Your task to perform on an android device: Open Google Maps Image 0: 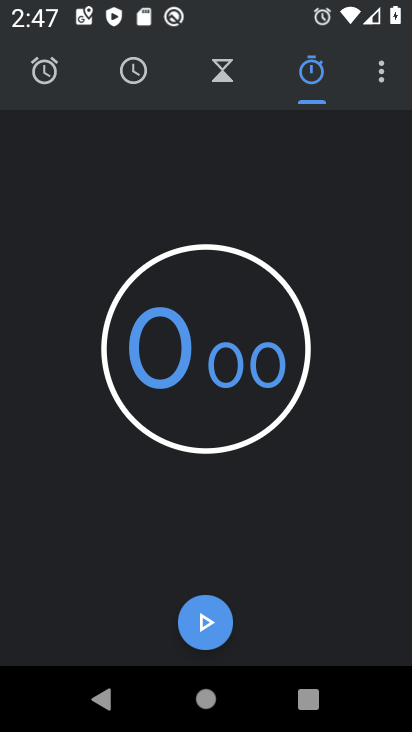
Step 0: press home button
Your task to perform on an android device: Open Google Maps Image 1: 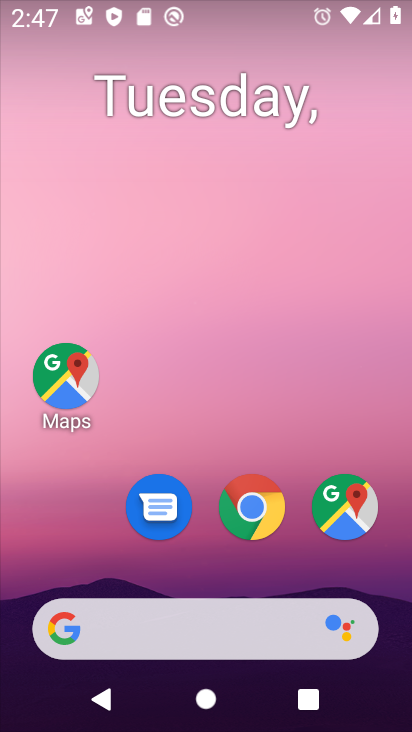
Step 1: click (333, 509)
Your task to perform on an android device: Open Google Maps Image 2: 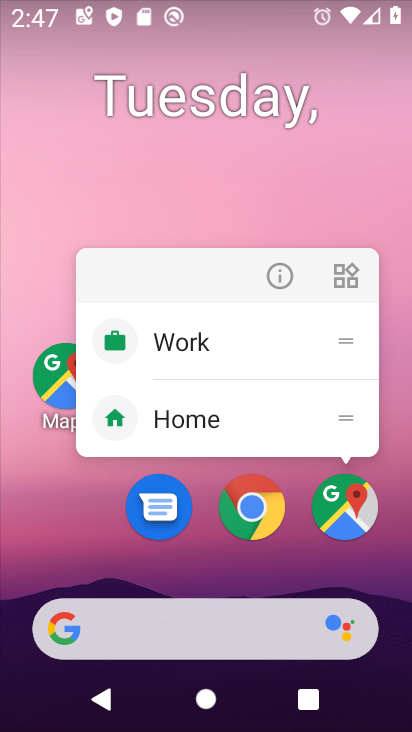
Step 2: click (336, 493)
Your task to perform on an android device: Open Google Maps Image 3: 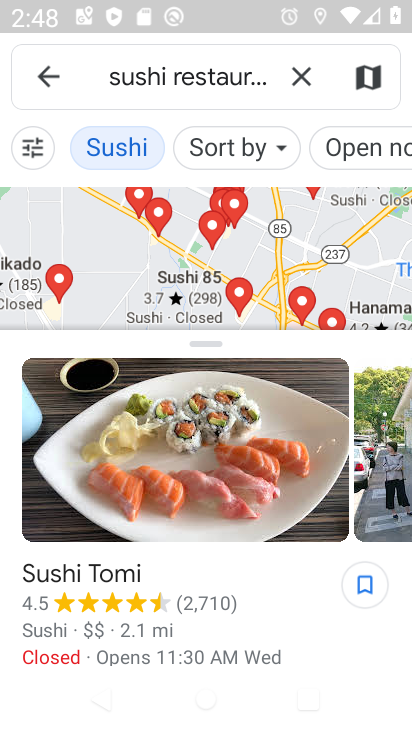
Step 3: task complete